Your task to perform on an android device: delete the emails in spam in the gmail app Image 0: 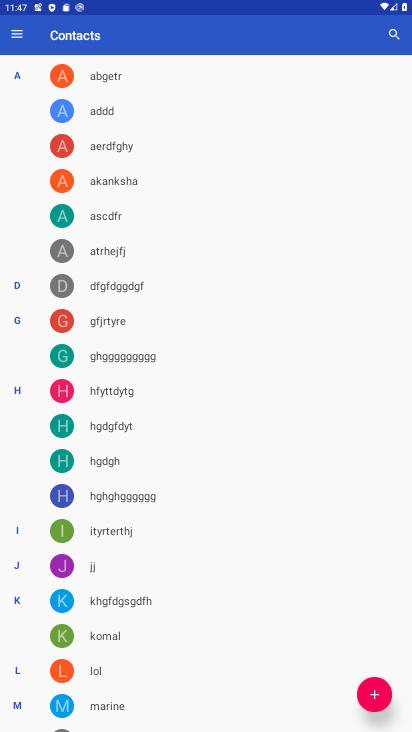
Step 0: press home button
Your task to perform on an android device: delete the emails in spam in the gmail app Image 1: 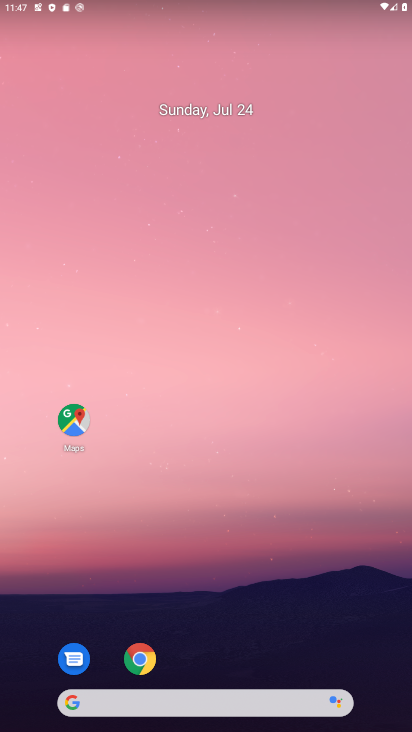
Step 1: click (173, 144)
Your task to perform on an android device: delete the emails in spam in the gmail app Image 2: 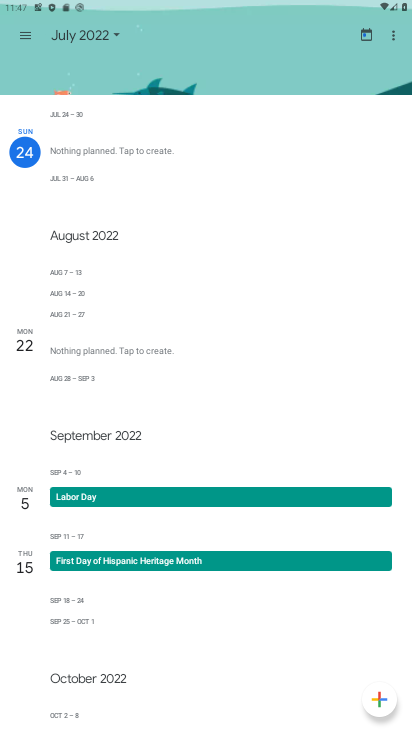
Step 2: press home button
Your task to perform on an android device: delete the emails in spam in the gmail app Image 3: 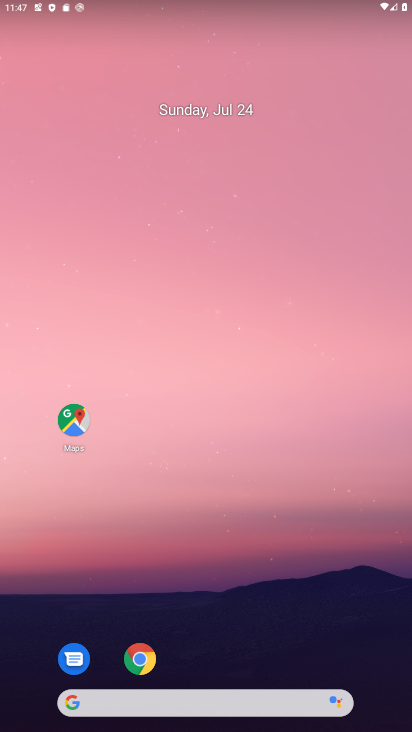
Step 3: drag from (10, 667) to (282, 240)
Your task to perform on an android device: delete the emails in spam in the gmail app Image 4: 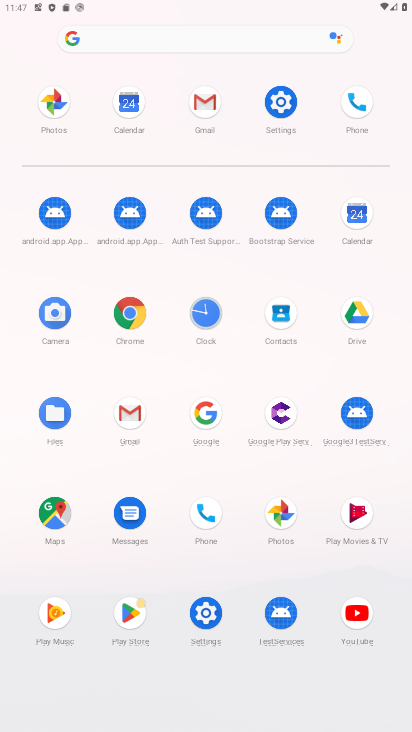
Step 4: click (120, 416)
Your task to perform on an android device: delete the emails in spam in the gmail app Image 5: 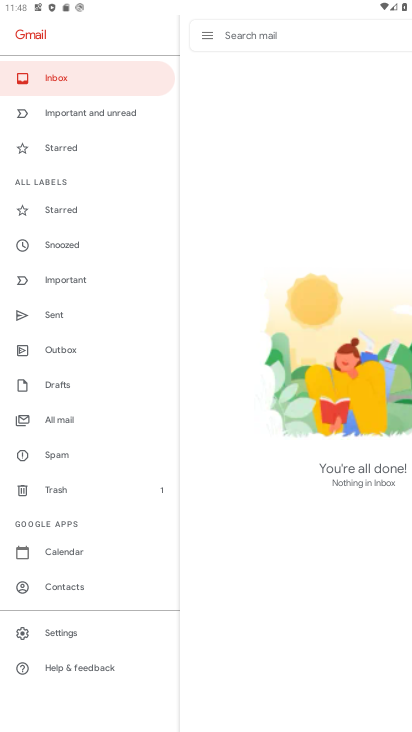
Step 5: click (53, 458)
Your task to perform on an android device: delete the emails in spam in the gmail app Image 6: 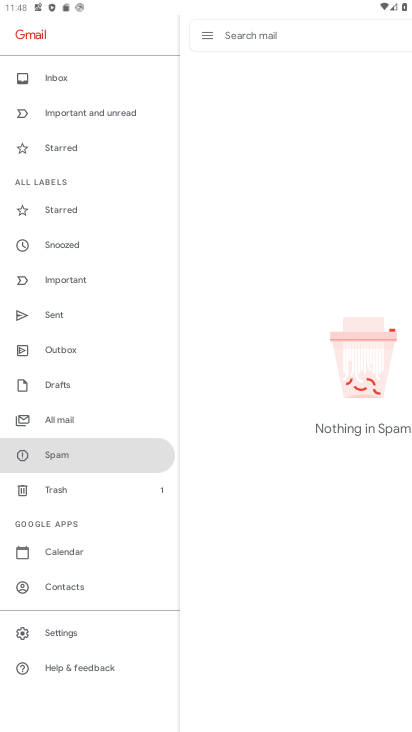
Step 6: task complete